Your task to perform on an android device: open app "DoorDash - Food Delivery" (install if not already installed) Image 0: 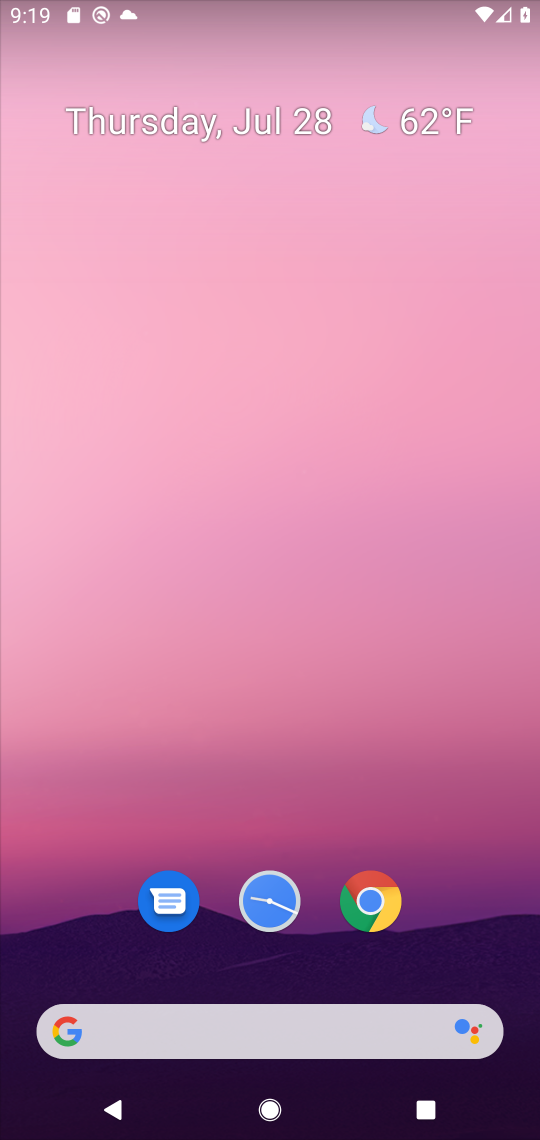
Step 0: drag from (274, 753) to (320, 3)
Your task to perform on an android device: open app "DoorDash - Food Delivery" (install if not already installed) Image 1: 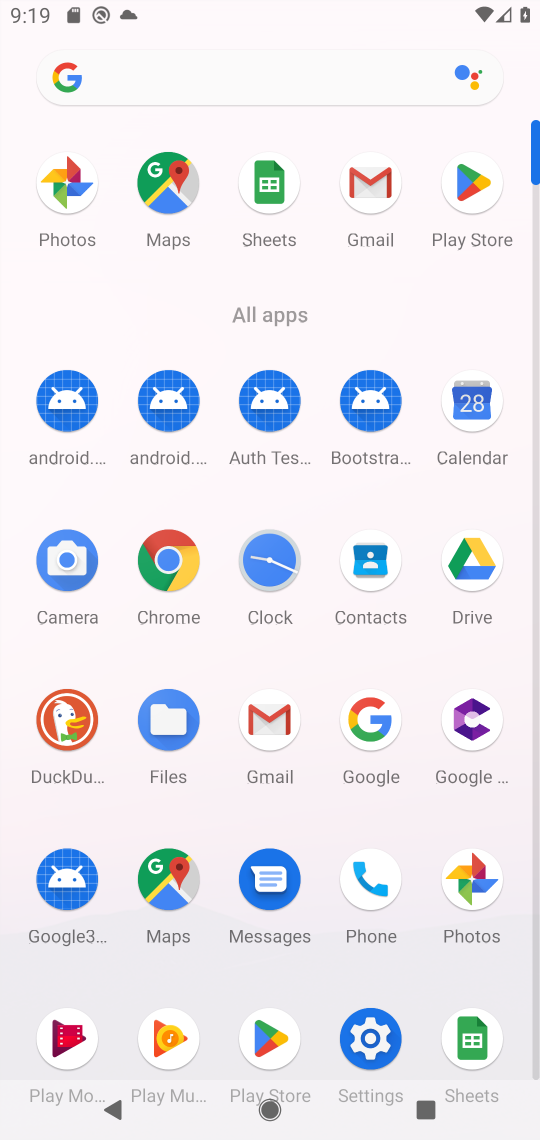
Step 1: click (473, 196)
Your task to perform on an android device: open app "DoorDash - Food Delivery" (install if not already installed) Image 2: 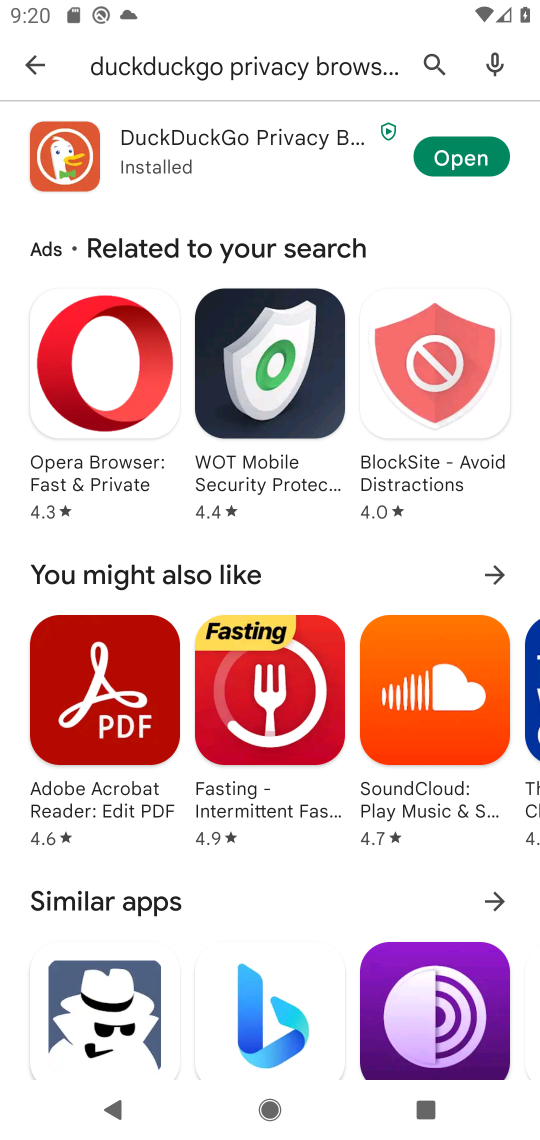
Step 2: click (33, 61)
Your task to perform on an android device: open app "DoorDash - Food Delivery" (install if not already installed) Image 3: 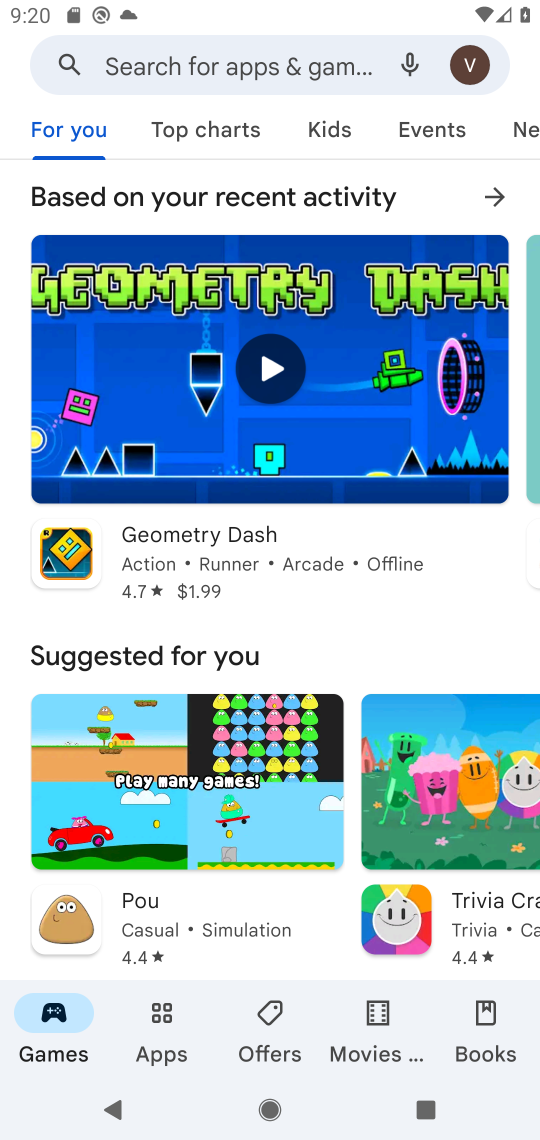
Step 3: click (117, 58)
Your task to perform on an android device: open app "DoorDash - Food Delivery" (install if not already installed) Image 4: 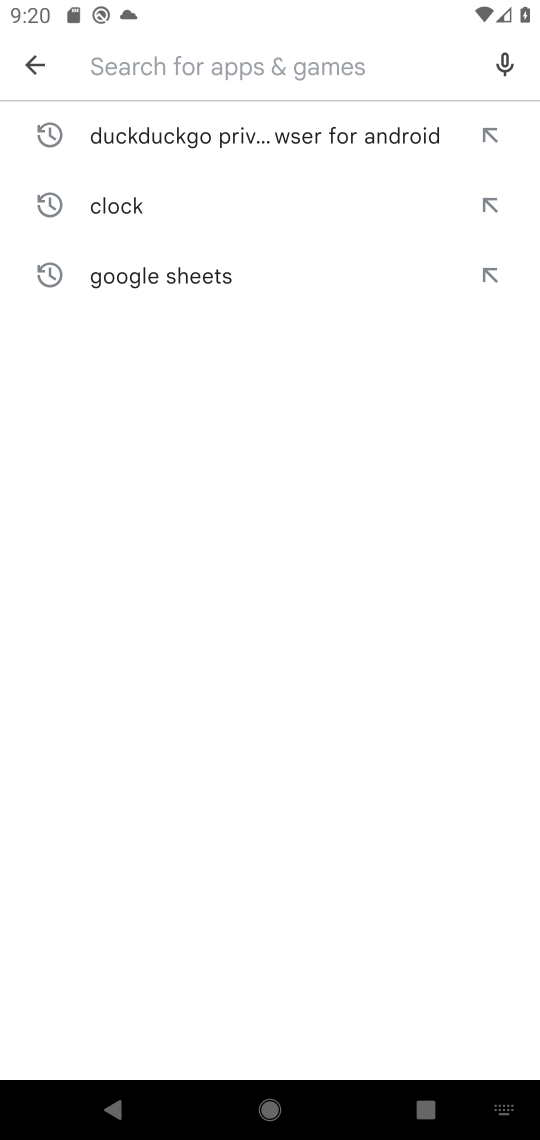
Step 4: type "doordash"
Your task to perform on an android device: open app "DoorDash - Food Delivery" (install if not already installed) Image 5: 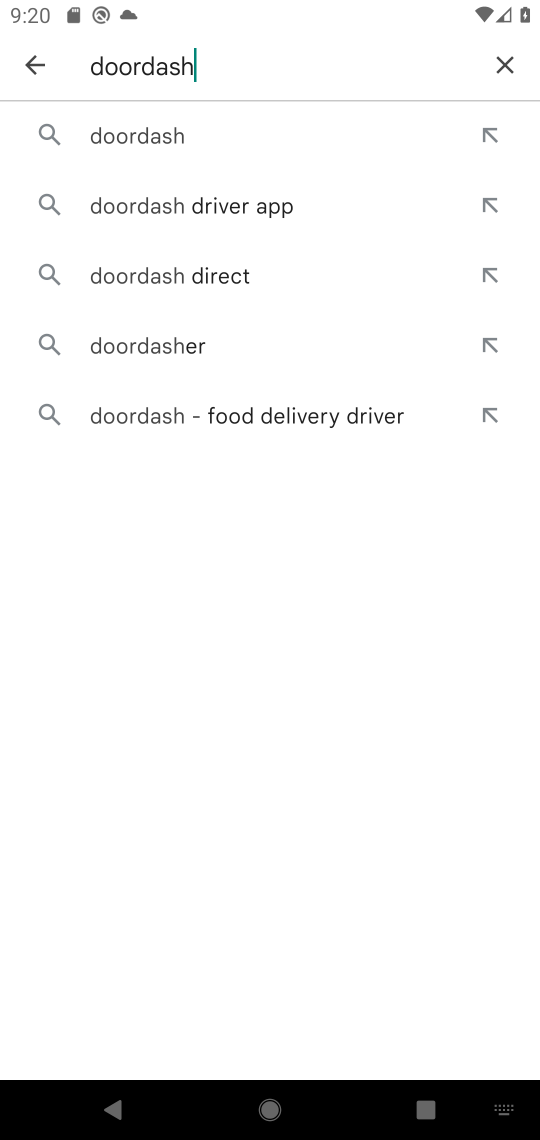
Step 5: click (237, 411)
Your task to perform on an android device: open app "DoorDash - Food Delivery" (install if not already installed) Image 6: 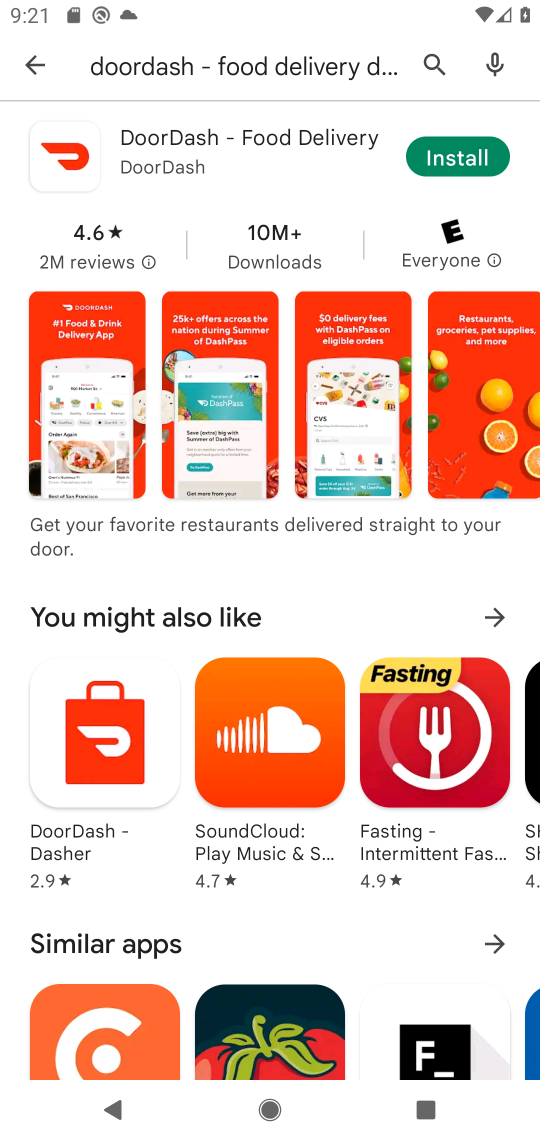
Step 6: click (497, 158)
Your task to perform on an android device: open app "DoorDash - Food Delivery" (install if not already installed) Image 7: 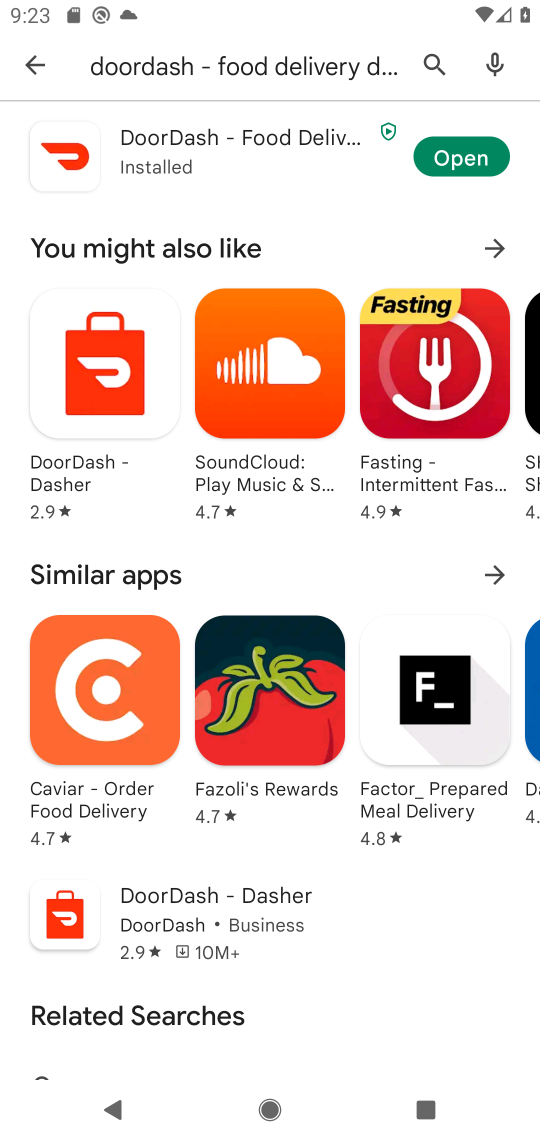
Step 7: click (486, 159)
Your task to perform on an android device: open app "DoorDash - Food Delivery" (install if not already installed) Image 8: 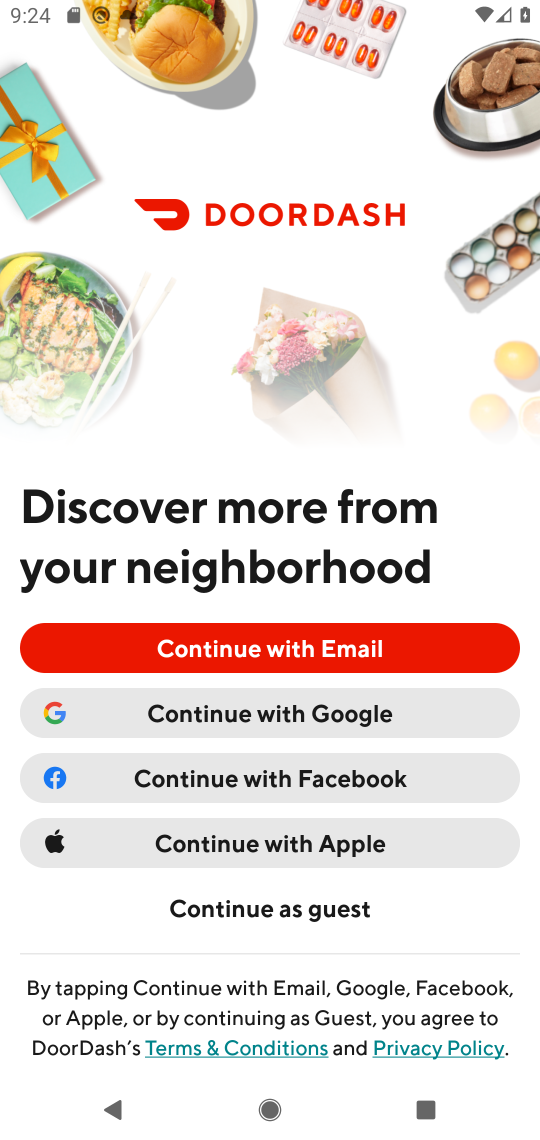
Step 8: task complete